Your task to perform on an android device: Open sound settings Image 0: 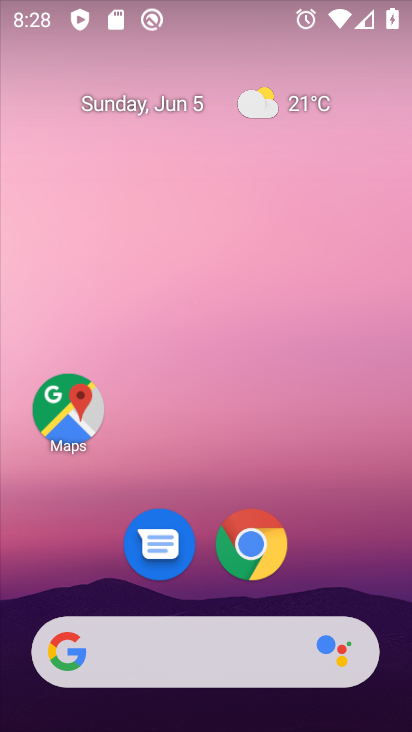
Step 0: drag from (392, 686) to (310, 106)
Your task to perform on an android device: Open sound settings Image 1: 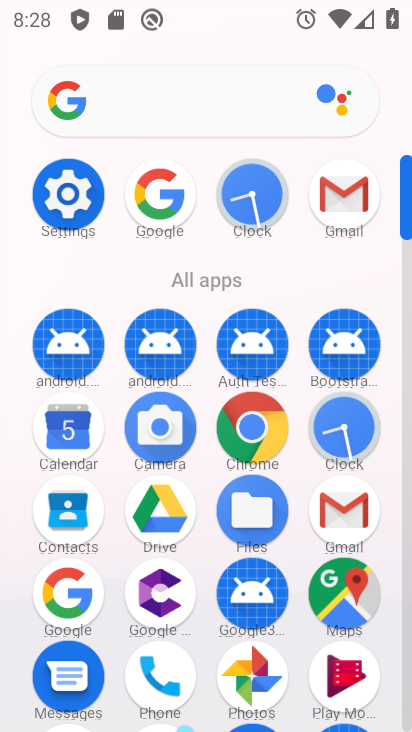
Step 1: click (68, 215)
Your task to perform on an android device: Open sound settings Image 2: 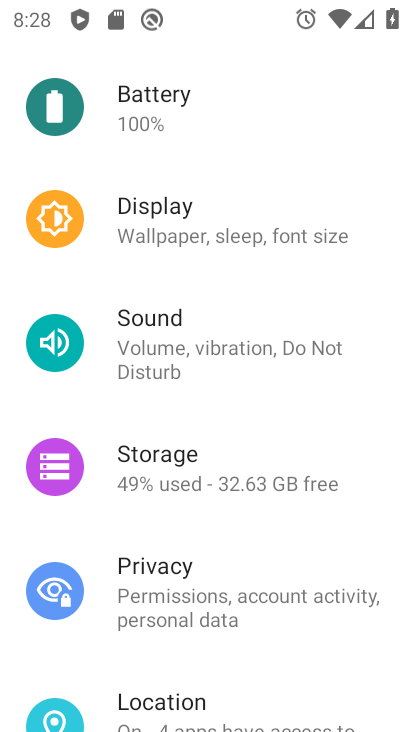
Step 2: click (151, 338)
Your task to perform on an android device: Open sound settings Image 3: 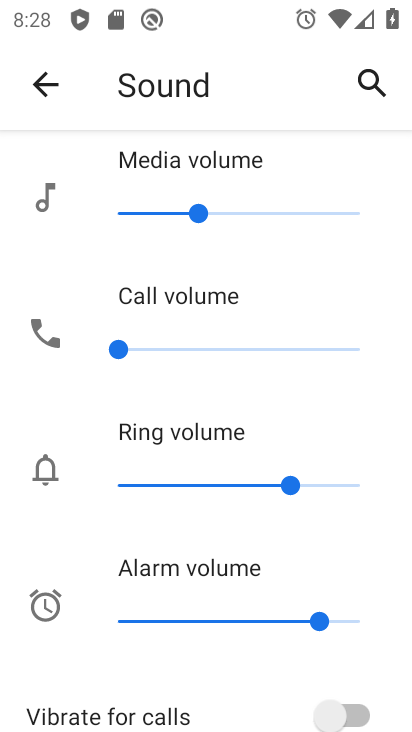
Step 3: drag from (257, 624) to (209, 163)
Your task to perform on an android device: Open sound settings Image 4: 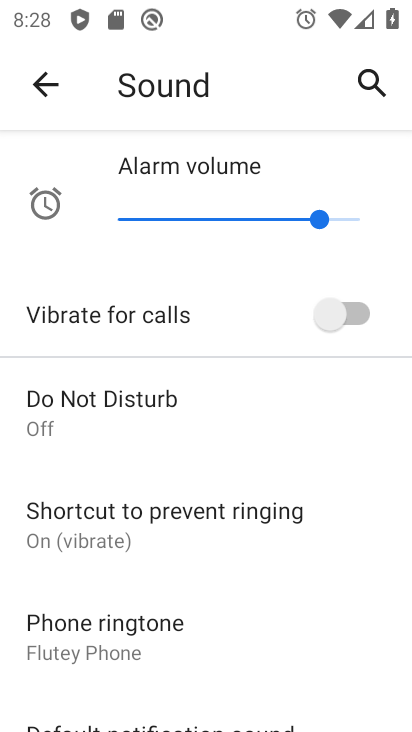
Step 4: drag from (249, 621) to (239, 149)
Your task to perform on an android device: Open sound settings Image 5: 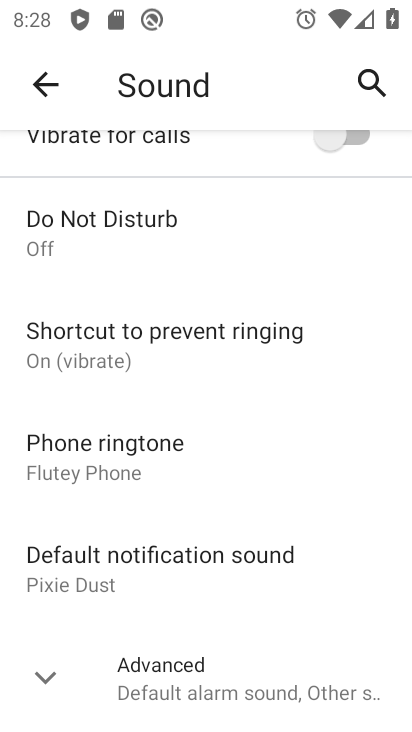
Step 5: click (53, 678)
Your task to perform on an android device: Open sound settings Image 6: 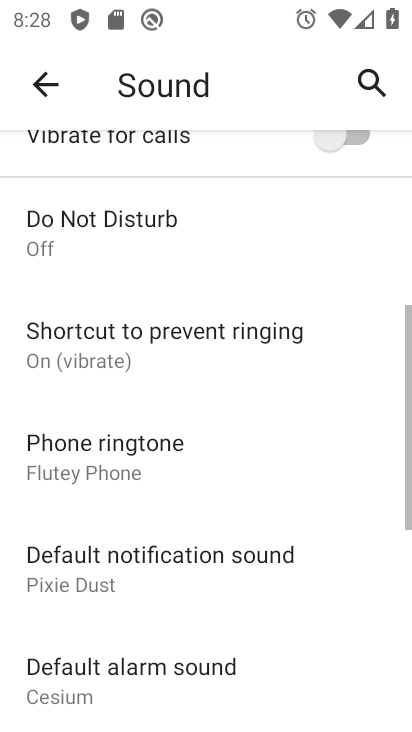
Step 6: task complete